Your task to perform on an android device: Show me the alarms in the clock app Image 0: 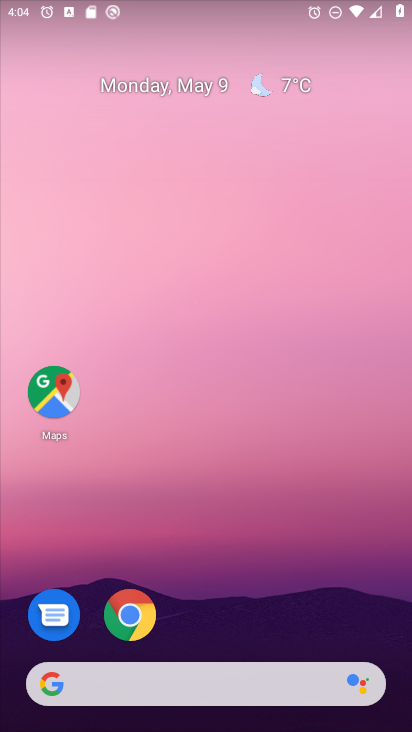
Step 0: drag from (371, 638) to (314, 26)
Your task to perform on an android device: Show me the alarms in the clock app Image 1: 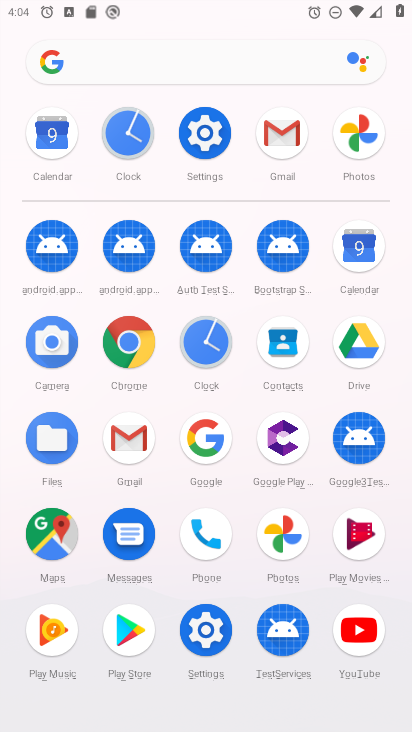
Step 1: click (201, 338)
Your task to perform on an android device: Show me the alarms in the clock app Image 2: 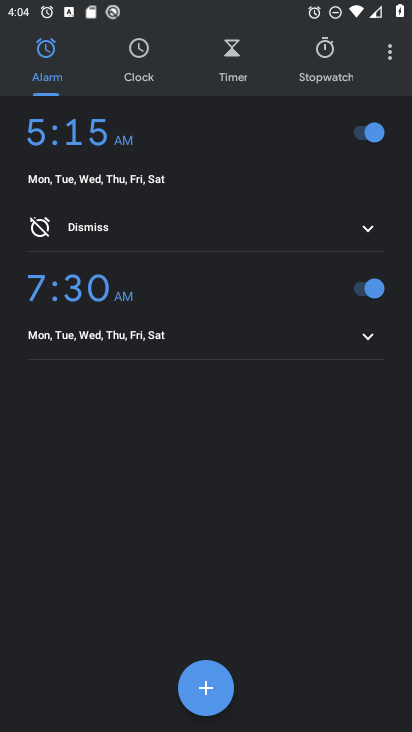
Step 2: task complete